Your task to perform on an android device: Open ESPN.com Image 0: 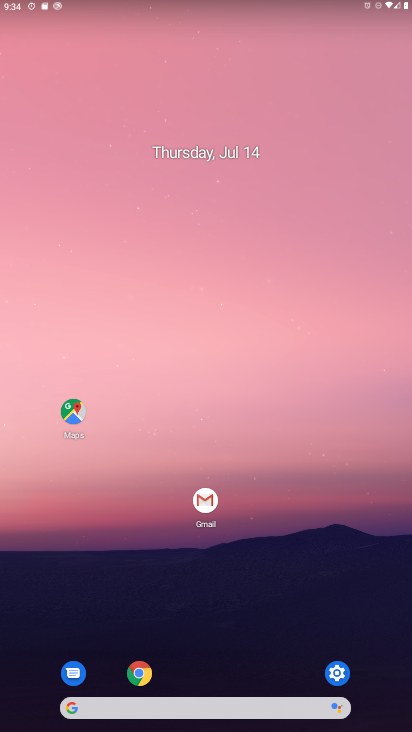
Step 0: press home button
Your task to perform on an android device: Open ESPN.com Image 1: 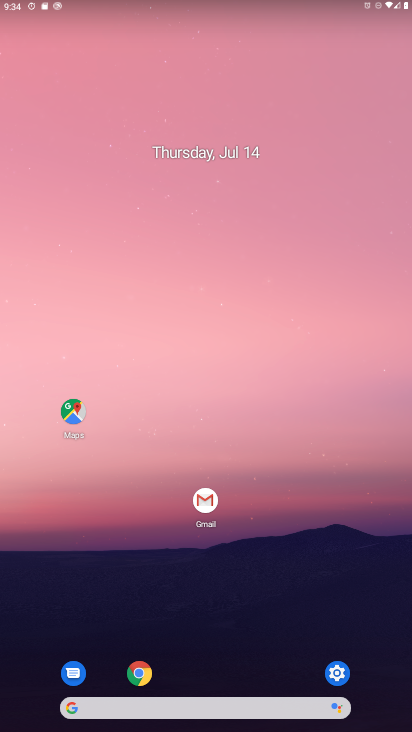
Step 1: click (135, 662)
Your task to perform on an android device: Open ESPN.com Image 2: 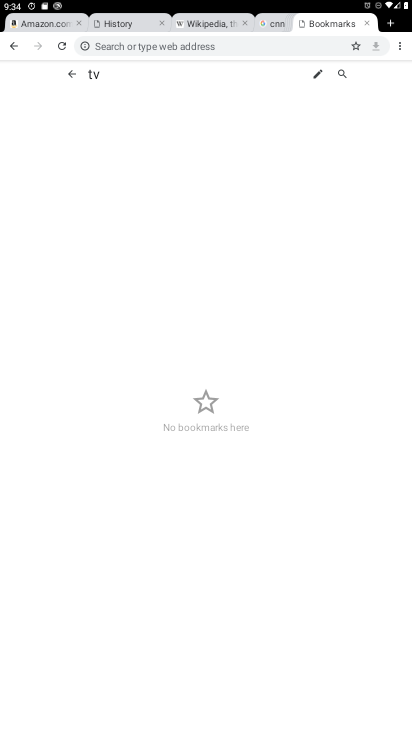
Step 2: click (392, 25)
Your task to perform on an android device: Open ESPN.com Image 3: 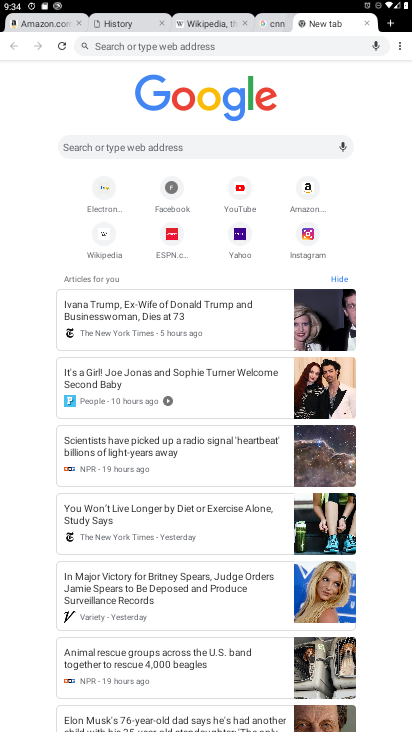
Step 3: click (91, 145)
Your task to perform on an android device: Open ESPN.com Image 4: 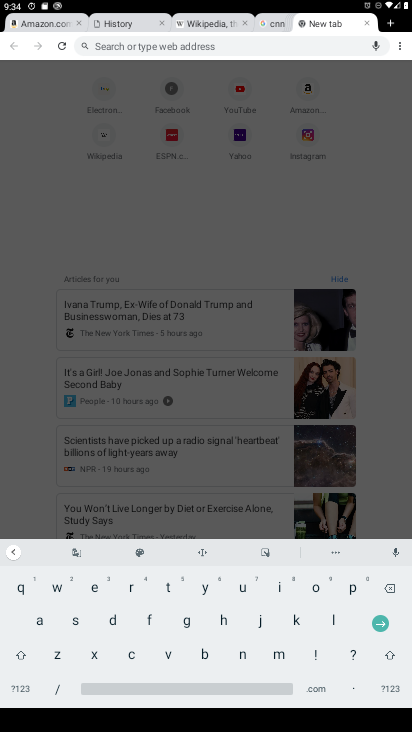
Step 4: click (13, 52)
Your task to perform on an android device: Open ESPN.com Image 5: 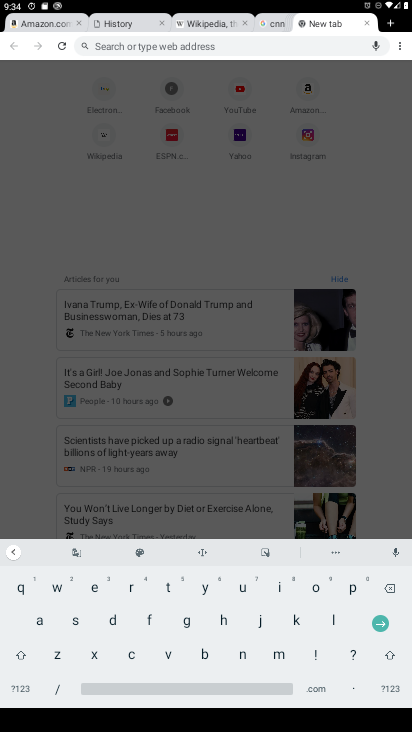
Step 5: press back button
Your task to perform on an android device: Open ESPN.com Image 6: 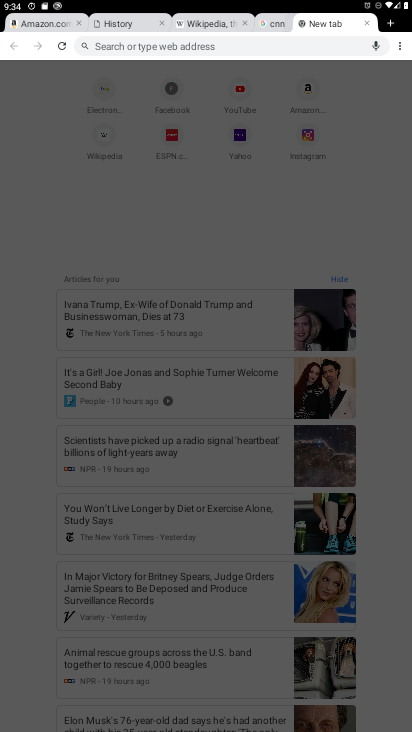
Step 6: click (173, 148)
Your task to perform on an android device: Open ESPN.com Image 7: 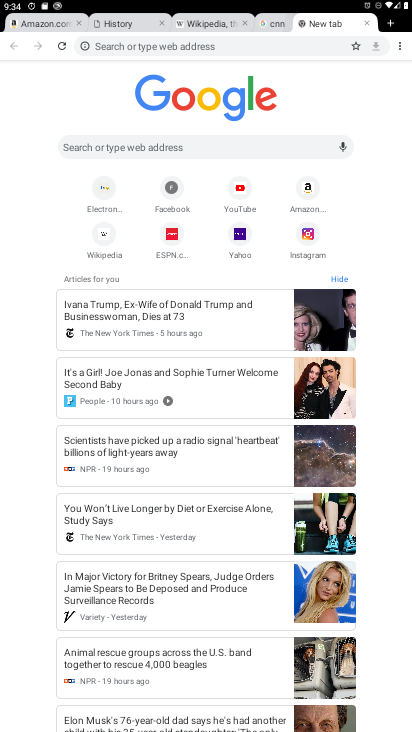
Step 7: click (173, 244)
Your task to perform on an android device: Open ESPN.com Image 8: 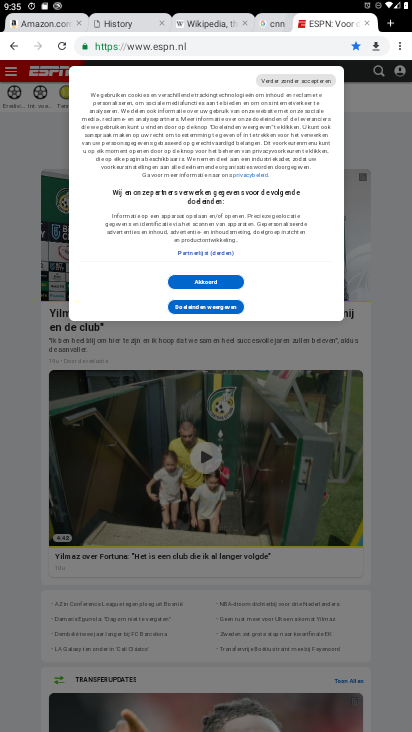
Step 8: click (202, 274)
Your task to perform on an android device: Open ESPN.com Image 9: 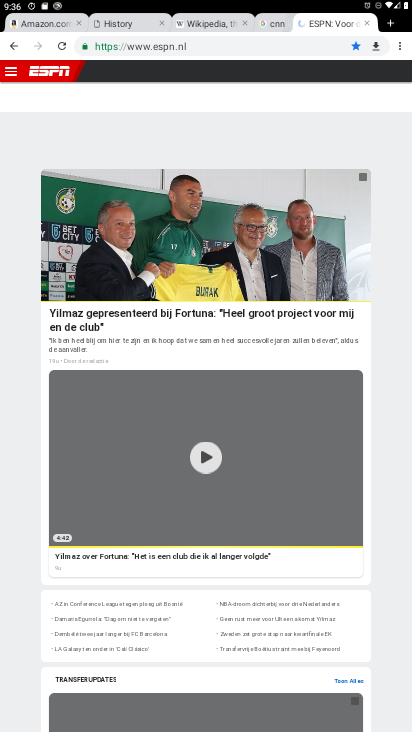
Step 9: task complete